Your task to perform on an android device: open sync settings in chrome Image 0: 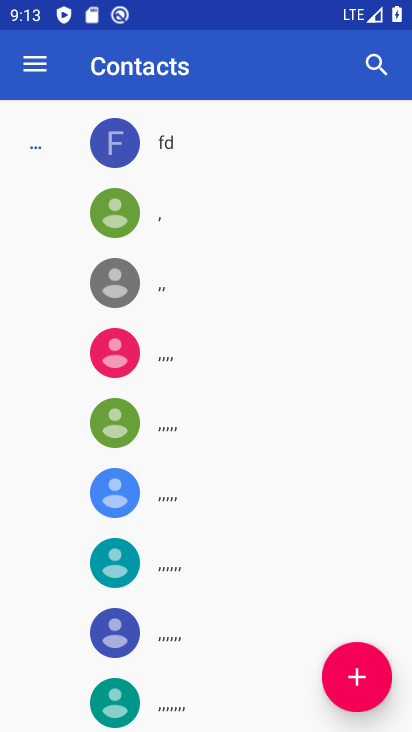
Step 0: press home button
Your task to perform on an android device: open sync settings in chrome Image 1: 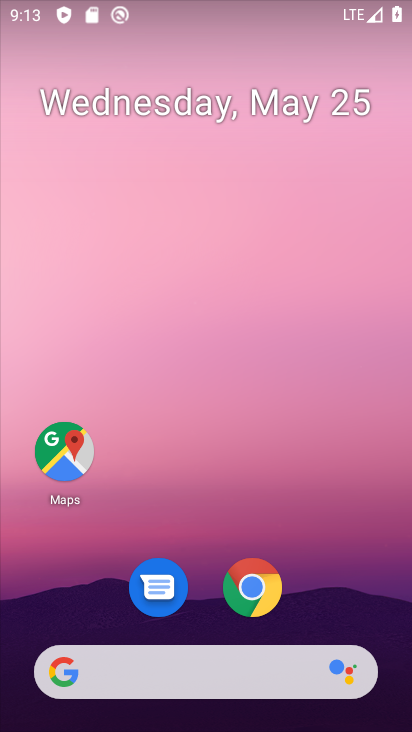
Step 1: click (258, 592)
Your task to perform on an android device: open sync settings in chrome Image 2: 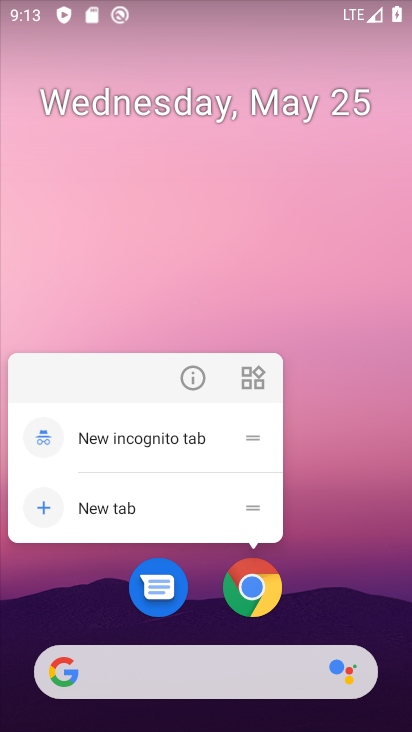
Step 2: click (250, 595)
Your task to perform on an android device: open sync settings in chrome Image 3: 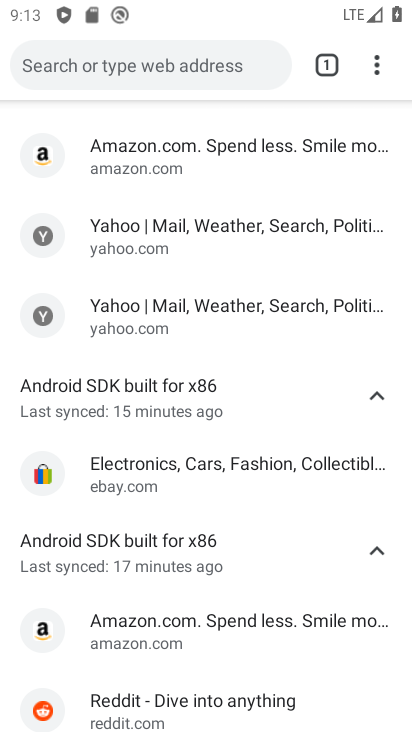
Step 3: click (377, 68)
Your task to perform on an android device: open sync settings in chrome Image 4: 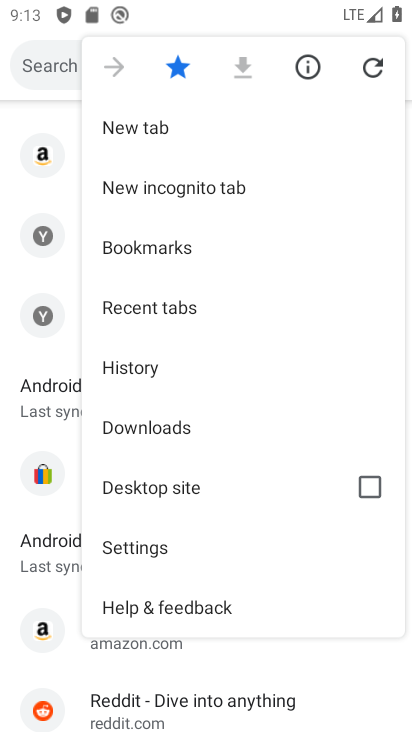
Step 4: click (157, 545)
Your task to perform on an android device: open sync settings in chrome Image 5: 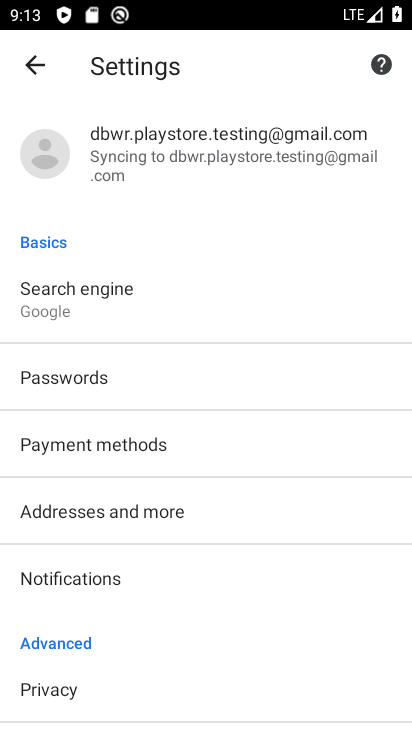
Step 5: drag from (140, 618) to (165, 470)
Your task to perform on an android device: open sync settings in chrome Image 6: 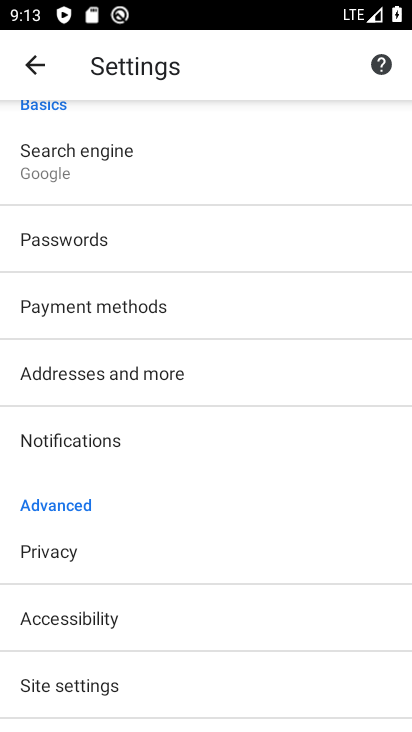
Step 6: drag from (116, 212) to (117, 433)
Your task to perform on an android device: open sync settings in chrome Image 7: 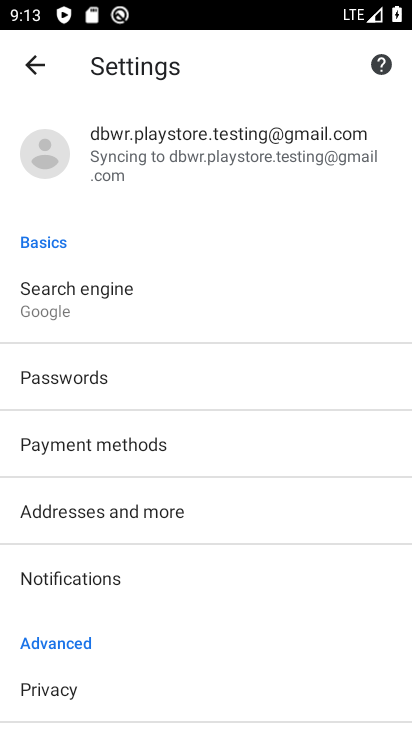
Step 7: drag from (208, 211) to (211, 303)
Your task to perform on an android device: open sync settings in chrome Image 8: 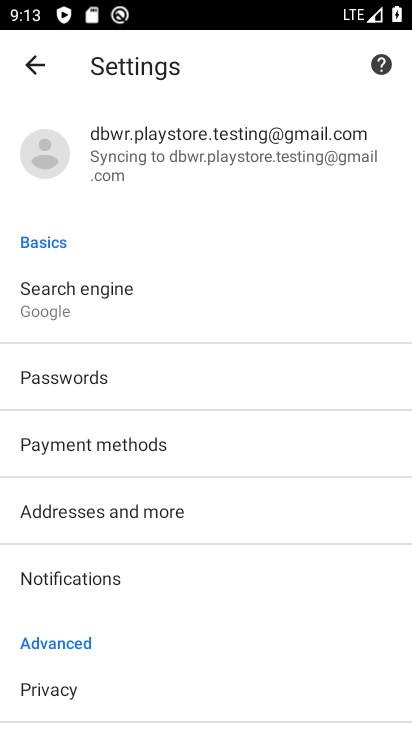
Step 8: click (227, 152)
Your task to perform on an android device: open sync settings in chrome Image 9: 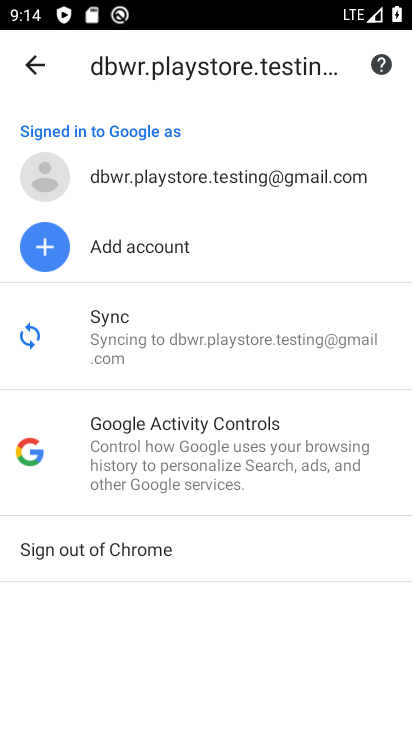
Step 9: click (204, 305)
Your task to perform on an android device: open sync settings in chrome Image 10: 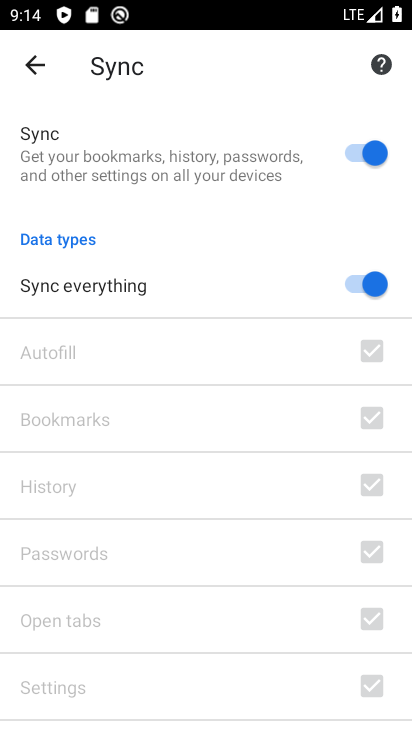
Step 10: task complete